Your task to perform on an android device: Go to wifi settings Image 0: 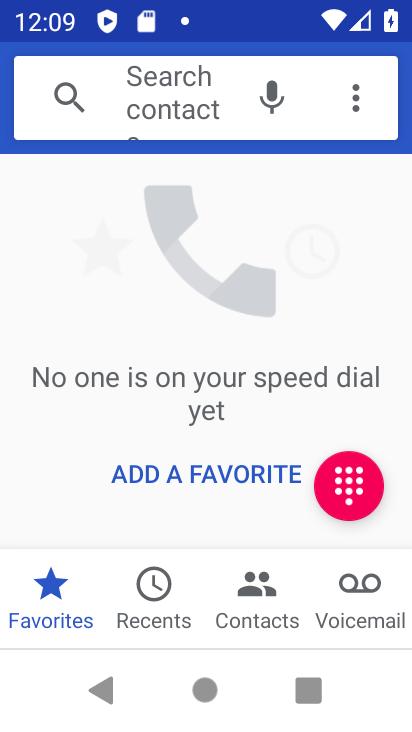
Step 0: press home button
Your task to perform on an android device: Go to wifi settings Image 1: 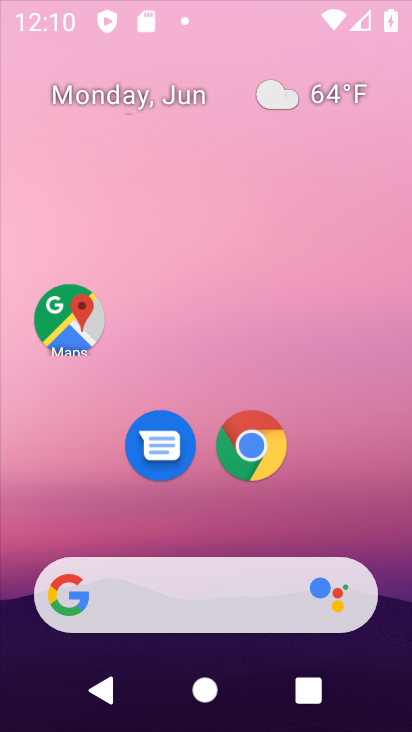
Step 1: drag from (234, 574) to (210, 28)
Your task to perform on an android device: Go to wifi settings Image 2: 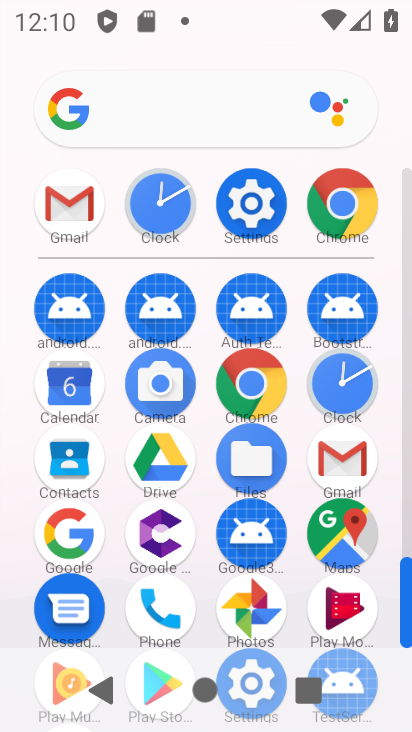
Step 2: click (255, 191)
Your task to perform on an android device: Go to wifi settings Image 3: 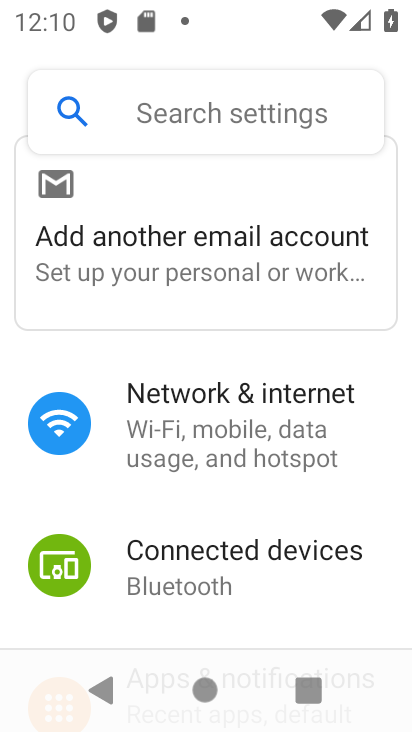
Step 3: click (271, 446)
Your task to perform on an android device: Go to wifi settings Image 4: 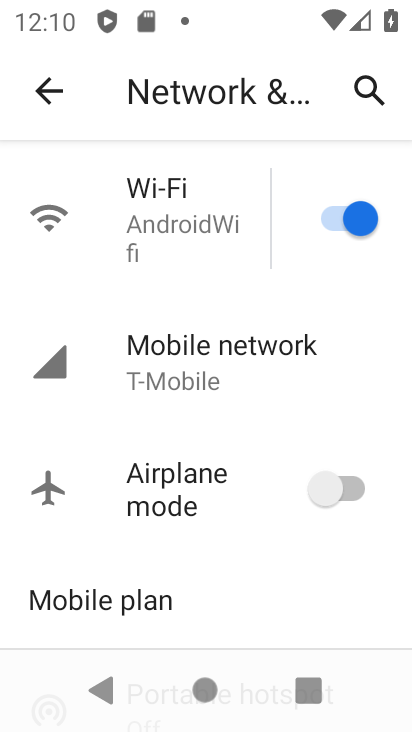
Step 4: click (200, 207)
Your task to perform on an android device: Go to wifi settings Image 5: 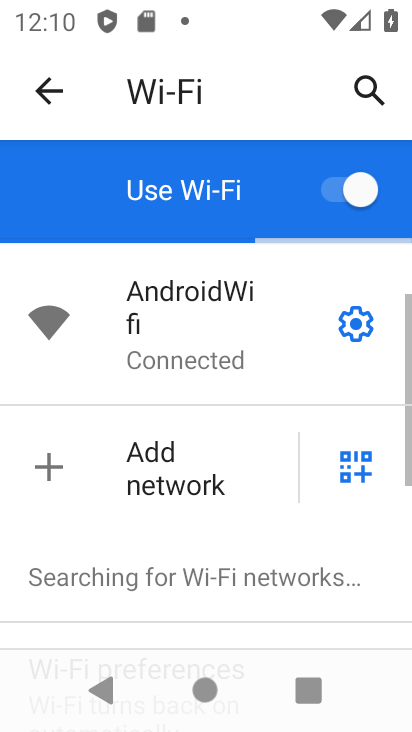
Step 5: task complete